Your task to perform on an android device: manage bookmarks in the chrome app Image 0: 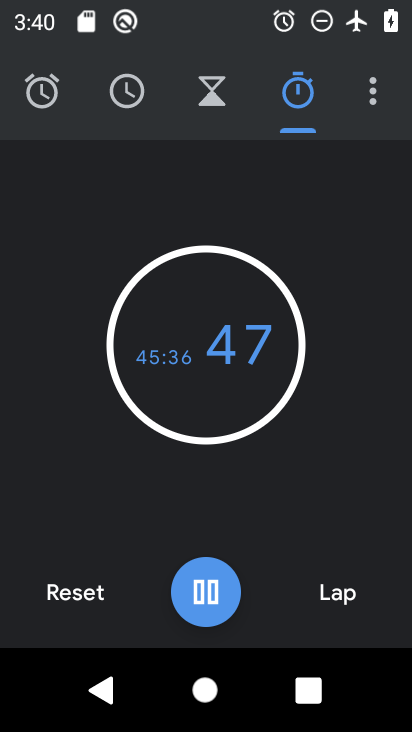
Step 0: press home button
Your task to perform on an android device: manage bookmarks in the chrome app Image 1: 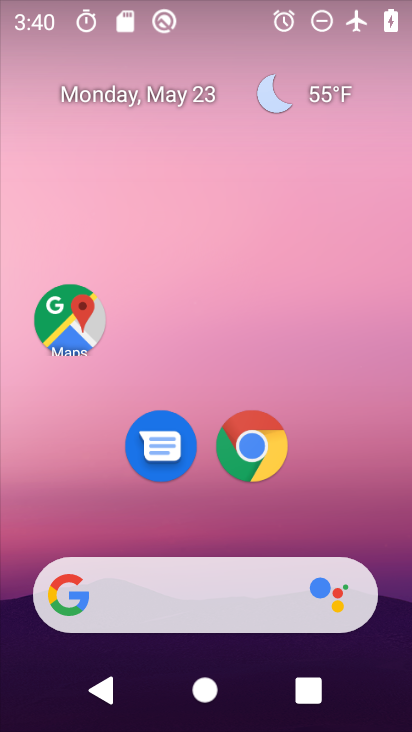
Step 1: click (232, 432)
Your task to perform on an android device: manage bookmarks in the chrome app Image 2: 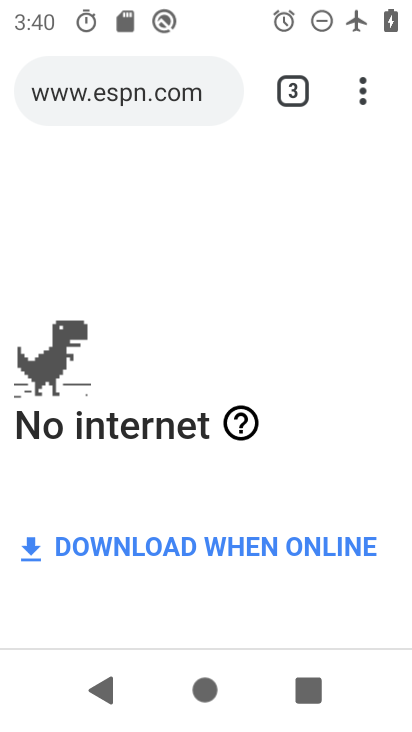
Step 2: click (360, 93)
Your task to perform on an android device: manage bookmarks in the chrome app Image 3: 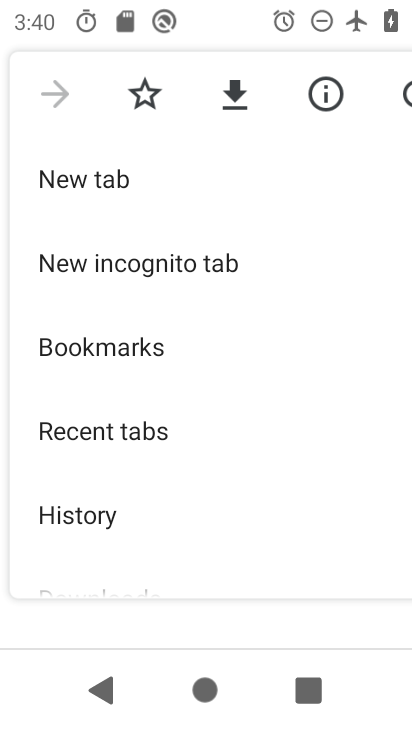
Step 3: drag from (134, 478) to (128, 275)
Your task to perform on an android device: manage bookmarks in the chrome app Image 4: 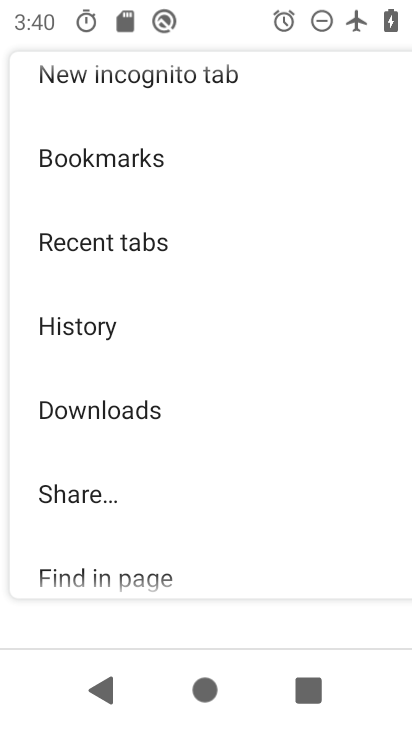
Step 4: drag from (128, 507) to (125, 261)
Your task to perform on an android device: manage bookmarks in the chrome app Image 5: 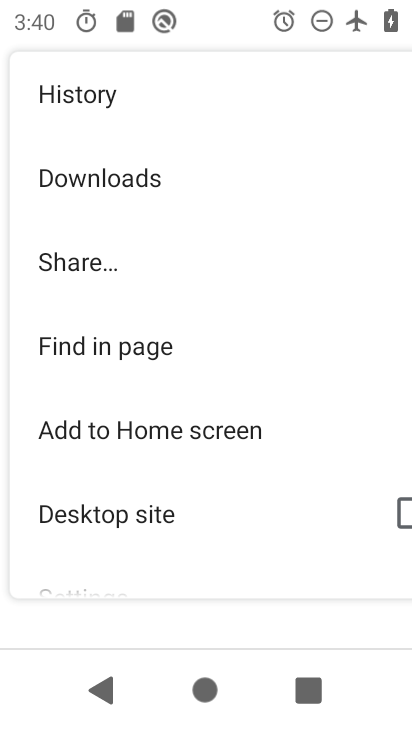
Step 5: drag from (131, 492) to (135, 278)
Your task to perform on an android device: manage bookmarks in the chrome app Image 6: 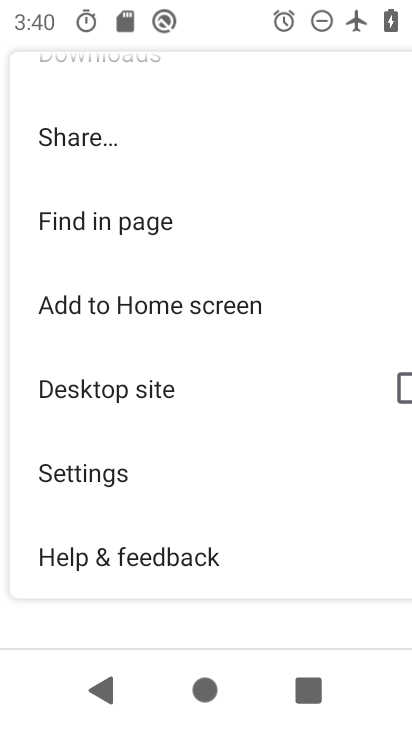
Step 6: drag from (128, 255) to (154, 481)
Your task to perform on an android device: manage bookmarks in the chrome app Image 7: 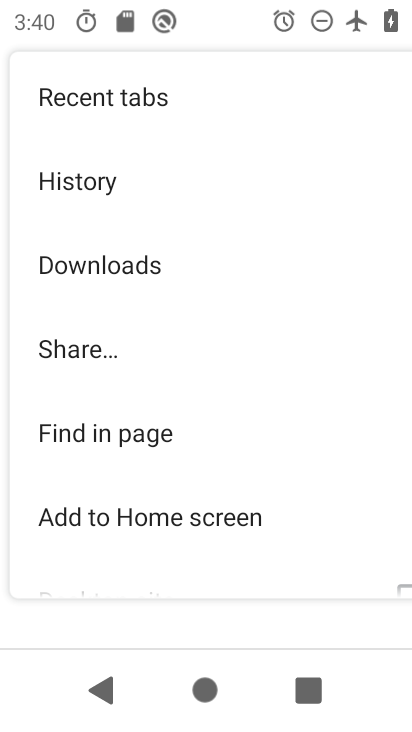
Step 7: drag from (147, 270) to (150, 464)
Your task to perform on an android device: manage bookmarks in the chrome app Image 8: 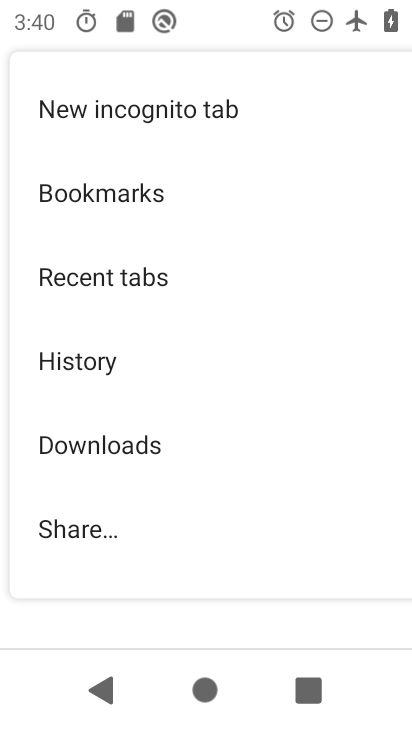
Step 8: click (158, 206)
Your task to perform on an android device: manage bookmarks in the chrome app Image 9: 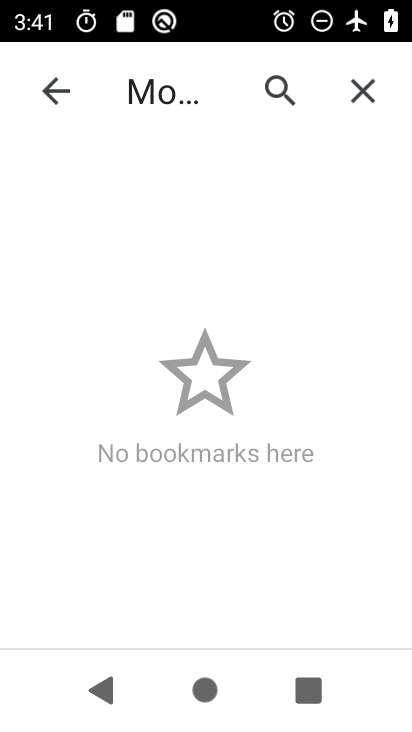
Step 9: task complete